Your task to perform on an android device: change your default location settings in chrome Image 0: 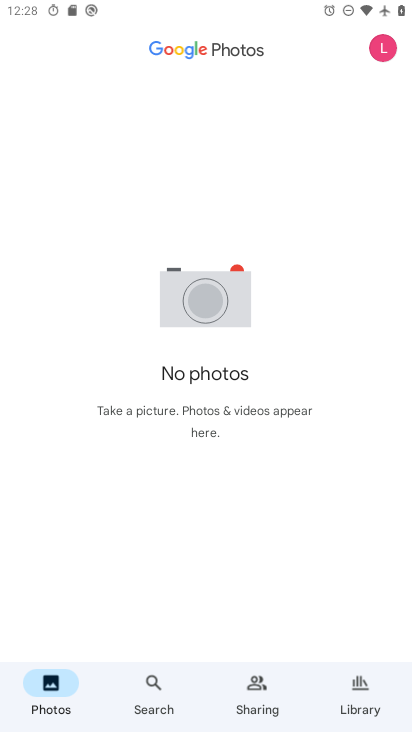
Step 0: press home button
Your task to perform on an android device: change your default location settings in chrome Image 1: 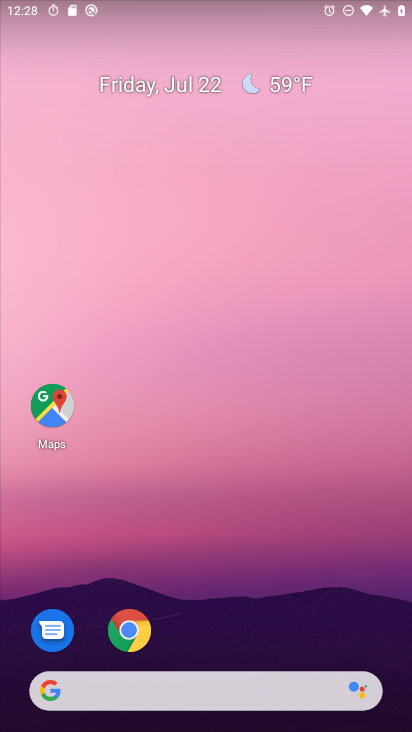
Step 1: drag from (258, 626) to (256, 293)
Your task to perform on an android device: change your default location settings in chrome Image 2: 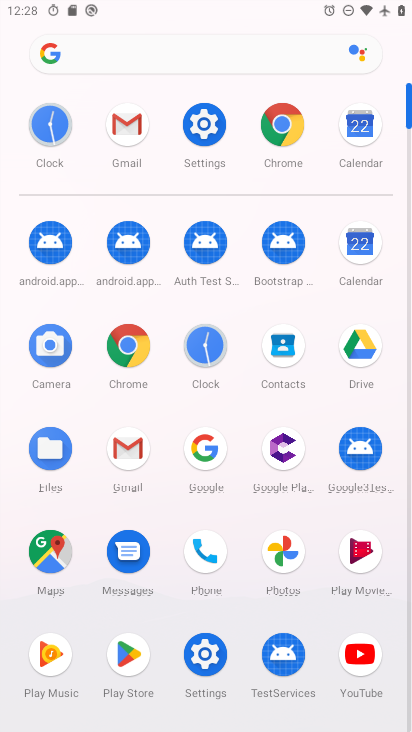
Step 2: click (276, 123)
Your task to perform on an android device: change your default location settings in chrome Image 3: 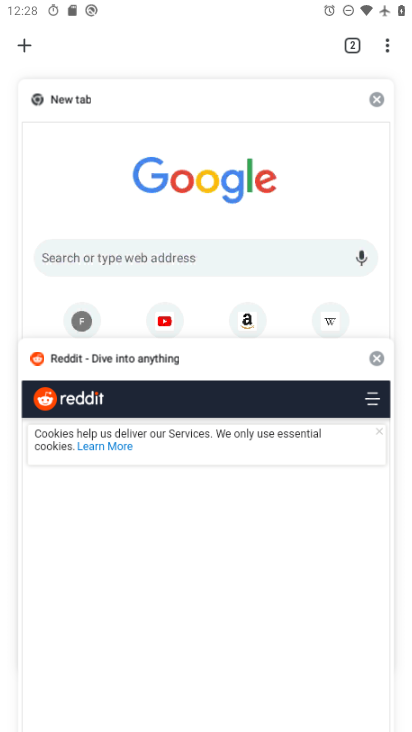
Step 3: drag from (386, 44) to (233, 175)
Your task to perform on an android device: change your default location settings in chrome Image 4: 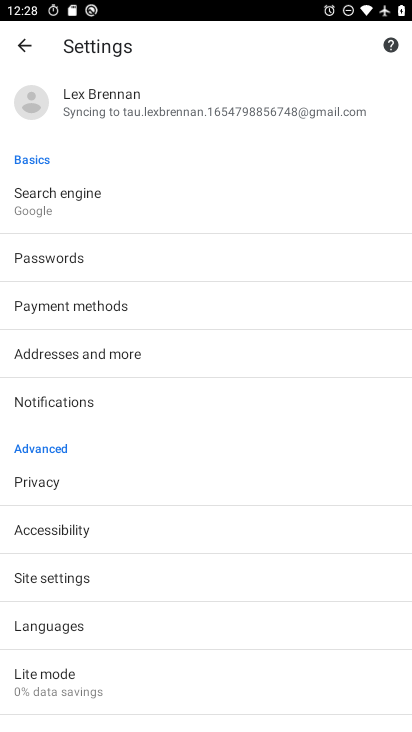
Step 4: click (60, 581)
Your task to perform on an android device: change your default location settings in chrome Image 5: 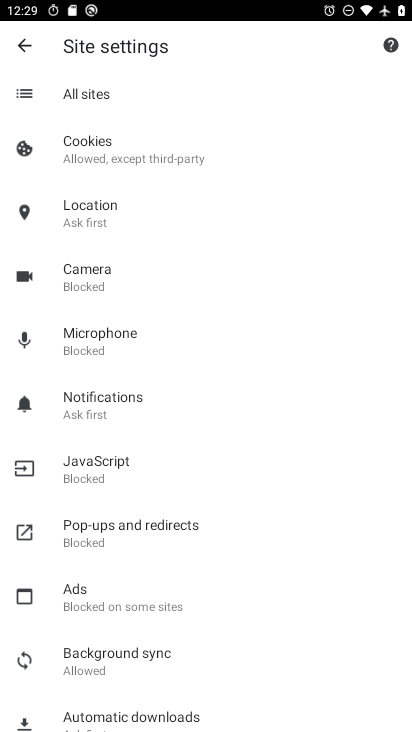
Step 5: click (99, 207)
Your task to perform on an android device: change your default location settings in chrome Image 6: 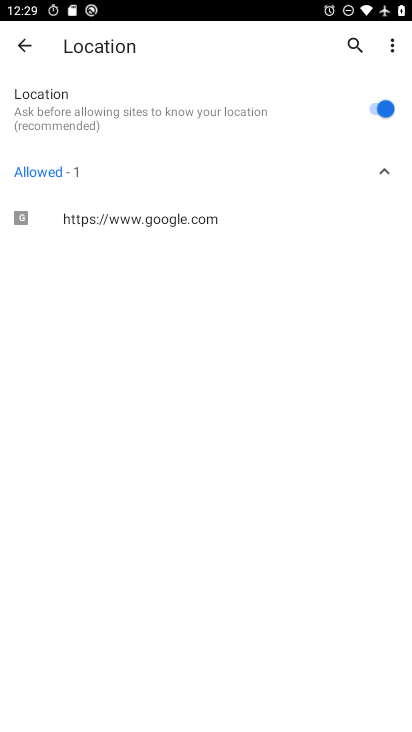
Step 6: click (386, 108)
Your task to perform on an android device: change your default location settings in chrome Image 7: 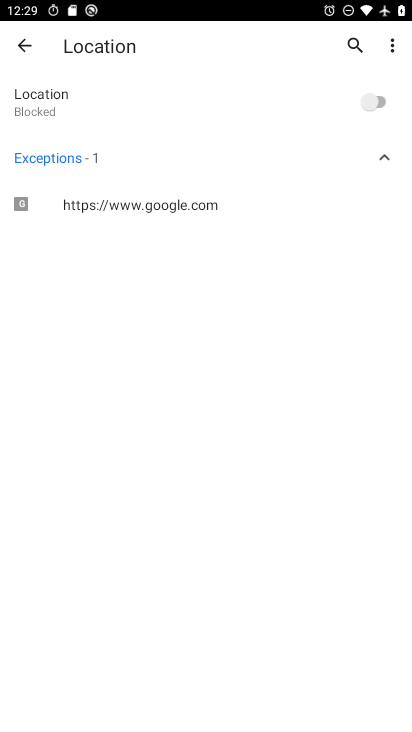
Step 7: task complete